Your task to perform on an android device: Open the Play Movies app and select the watchlist tab. Image 0: 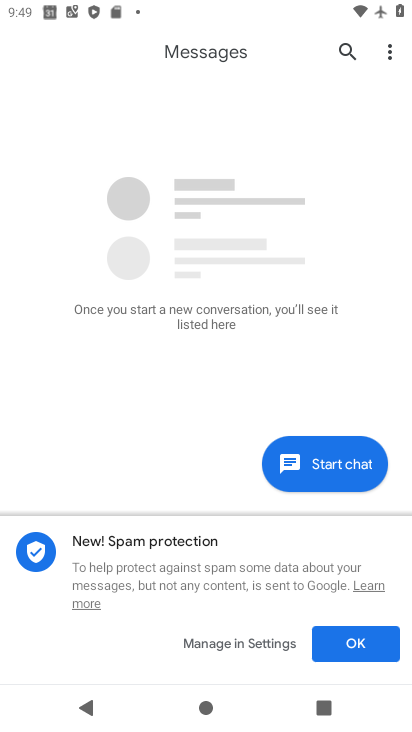
Step 0: press home button
Your task to perform on an android device: Open the Play Movies app and select the watchlist tab. Image 1: 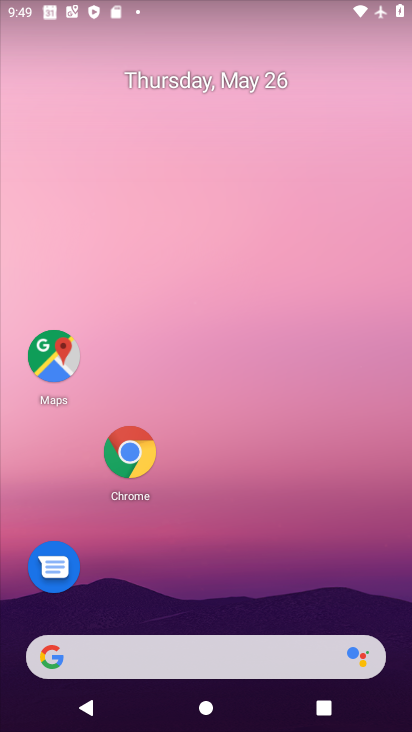
Step 1: drag from (182, 658) to (324, 123)
Your task to perform on an android device: Open the Play Movies app and select the watchlist tab. Image 2: 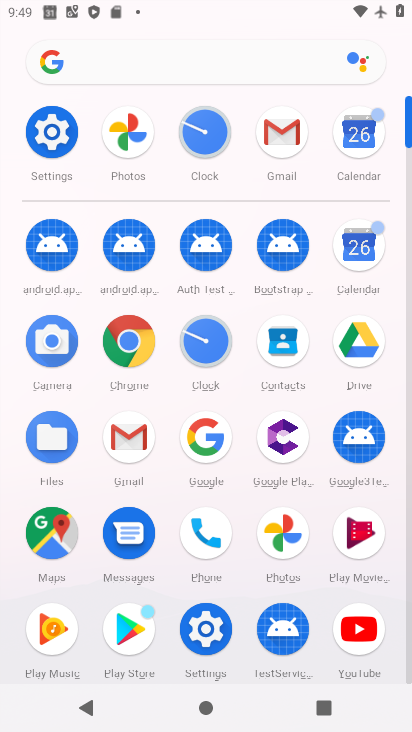
Step 2: click (361, 535)
Your task to perform on an android device: Open the Play Movies app and select the watchlist tab. Image 3: 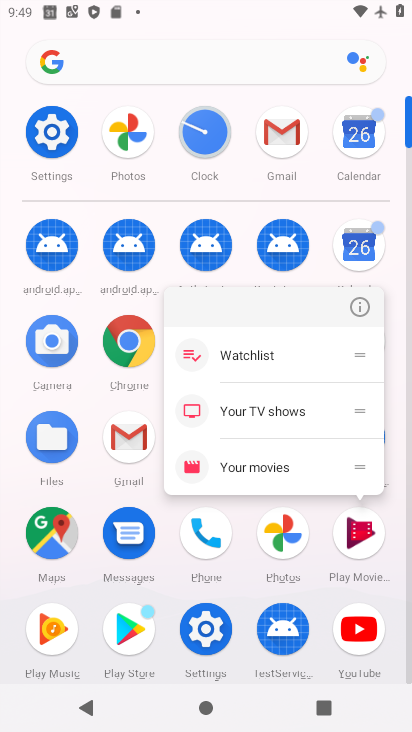
Step 3: click (361, 533)
Your task to perform on an android device: Open the Play Movies app and select the watchlist tab. Image 4: 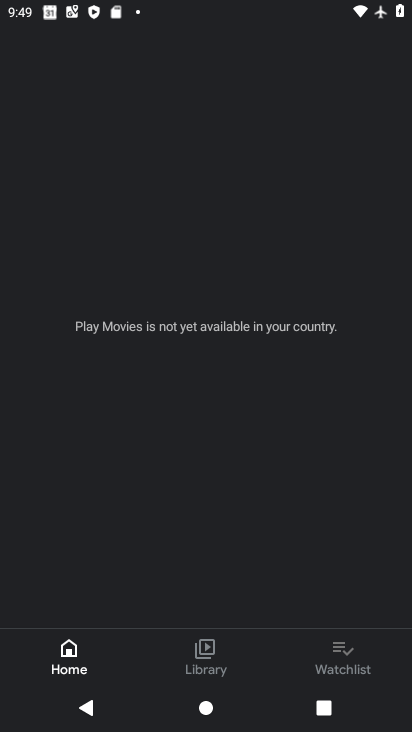
Step 4: click (347, 663)
Your task to perform on an android device: Open the Play Movies app and select the watchlist tab. Image 5: 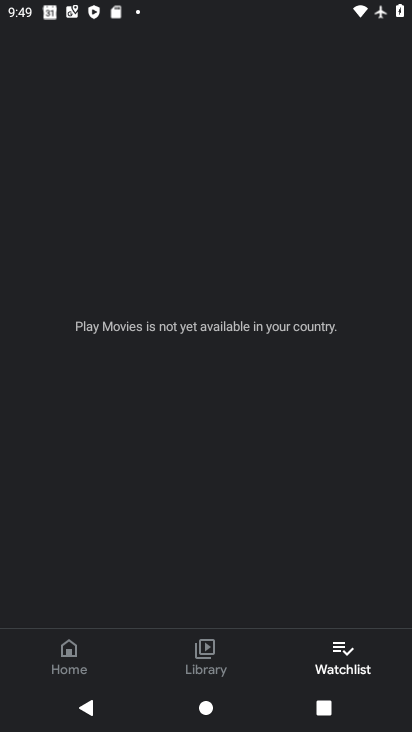
Step 5: task complete